Your task to perform on an android device: set default search engine in the chrome app Image 0: 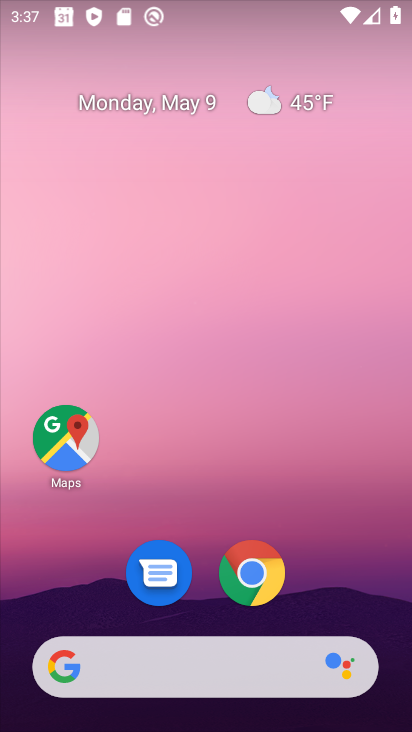
Step 0: click (258, 578)
Your task to perform on an android device: set default search engine in the chrome app Image 1: 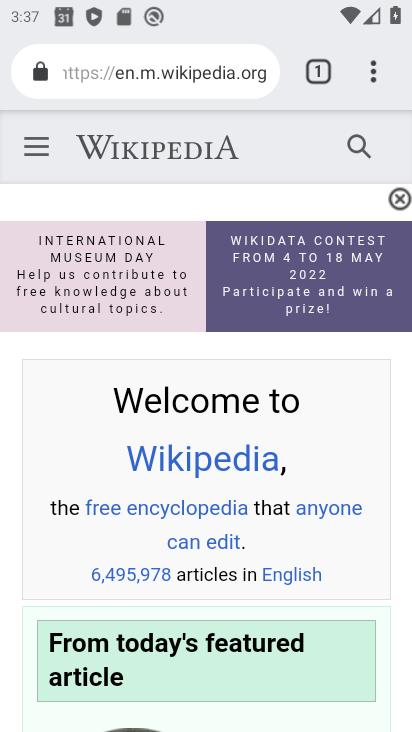
Step 1: drag from (377, 67) to (165, 561)
Your task to perform on an android device: set default search engine in the chrome app Image 2: 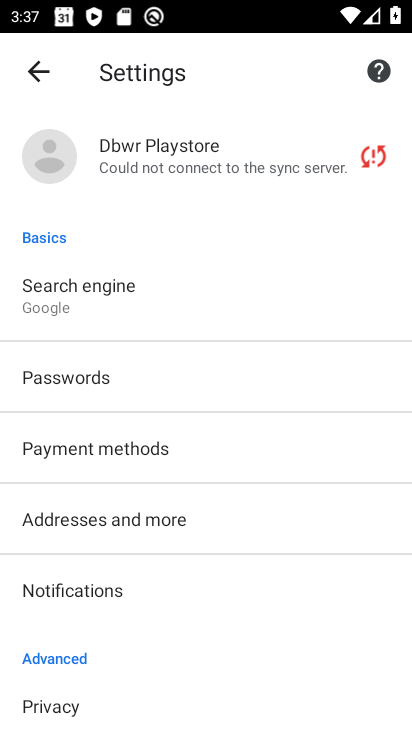
Step 2: click (68, 307)
Your task to perform on an android device: set default search engine in the chrome app Image 3: 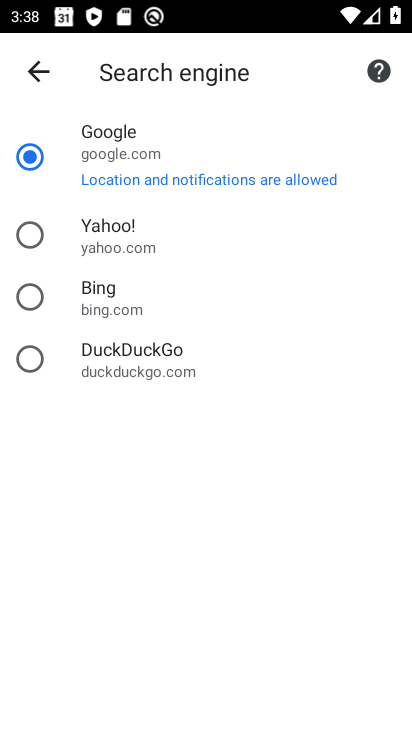
Step 3: click (39, 302)
Your task to perform on an android device: set default search engine in the chrome app Image 4: 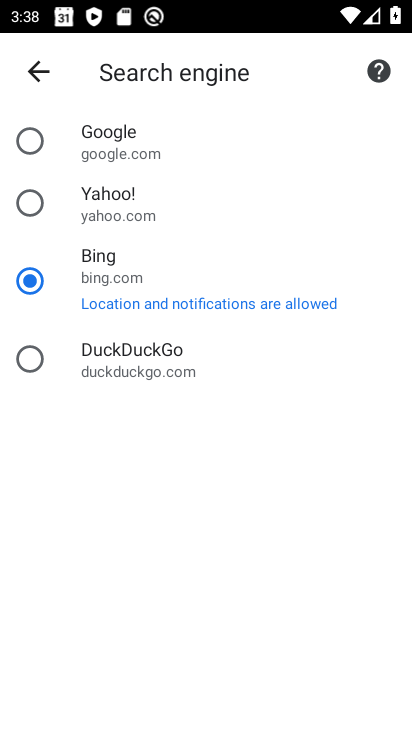
Step 4: task complete